Your task to perform on an android device: Go to location settings Image 0: 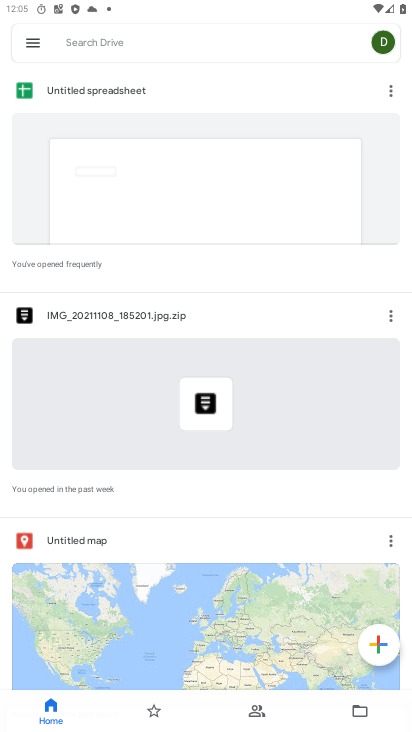
Step 0: press home button
Your task to perform on an android device: Go to location settings Image 1: 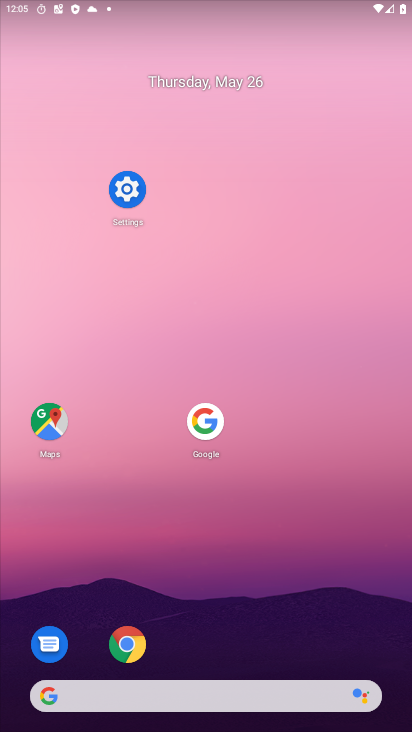
Step 1: drag from (221, 618) to (218, 147)
Your task to perform on an android device: Go to location settings Image 2: 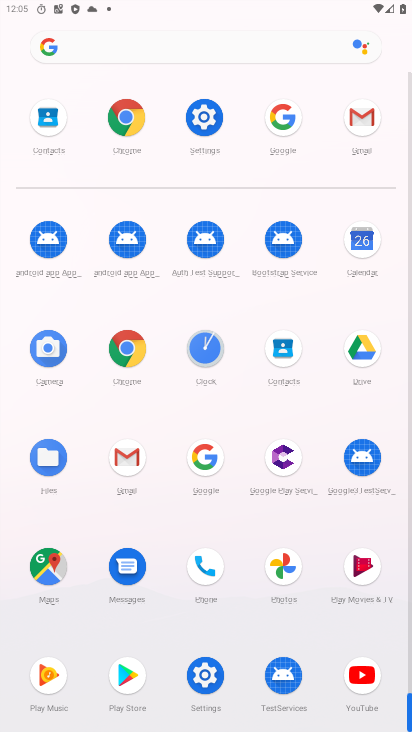
Step 2: click (205, 123)
Your task to perform on an android device: Go to location settings Image 3: 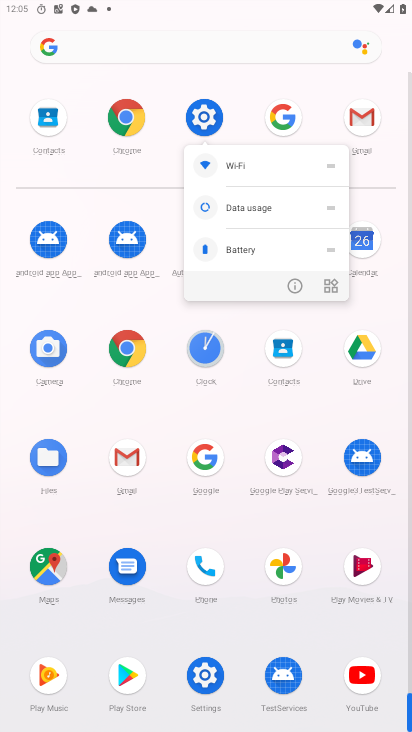
Step 3: click (205, 122)
Your task to perform on an android device: Go to location settings Image 4: 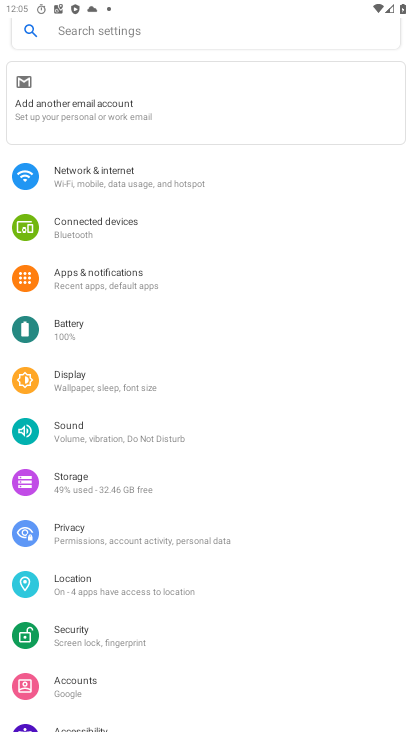
Step 4: click (134, 578)
Your task to perform on an android device: Go to location settings Image 5: 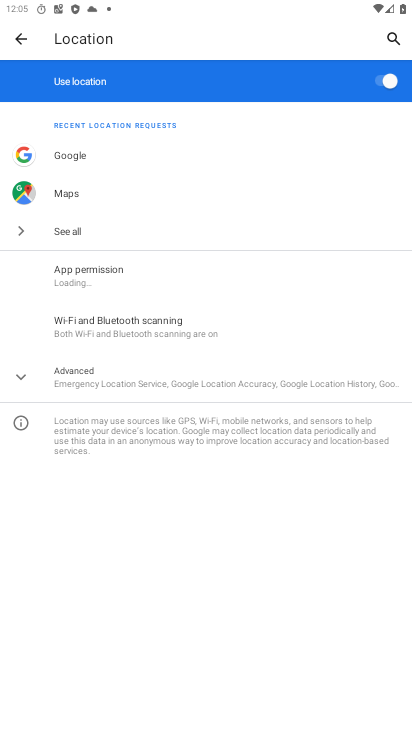
Step 5: task complete